Your task to perform on an android device: toggle translation in the chrome app Image 0: 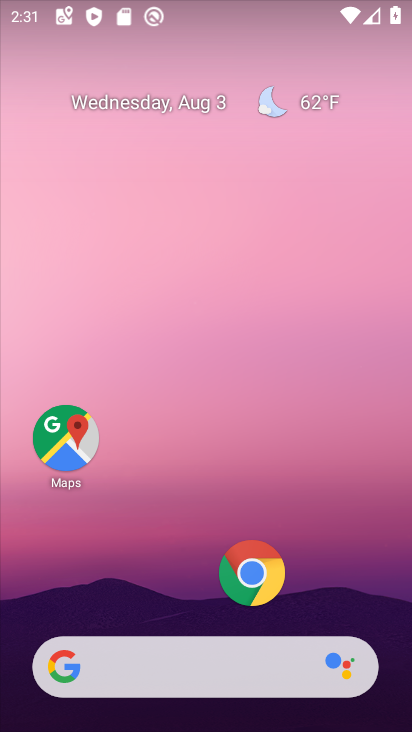
Step 0: drag from (177, 597) to (190, 46)
Your task to perform on an android device: toggle translation in the chrome app Image 1: 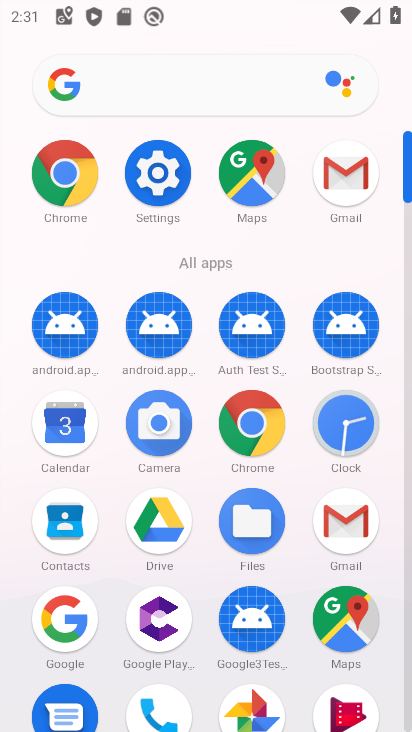
Step 1: click (261, 435)
Your task to perform on an android device: toggle translation in the chrome app Image 2: 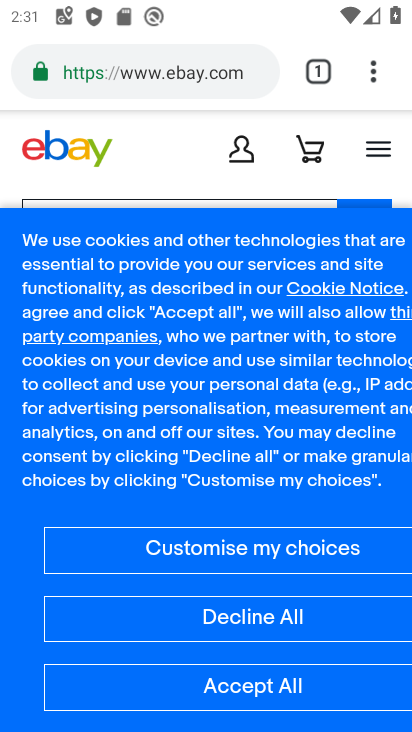
Step 2: click (371, 57)
Your task to perform on an android device: toggle translation in the chrome app Image 3: 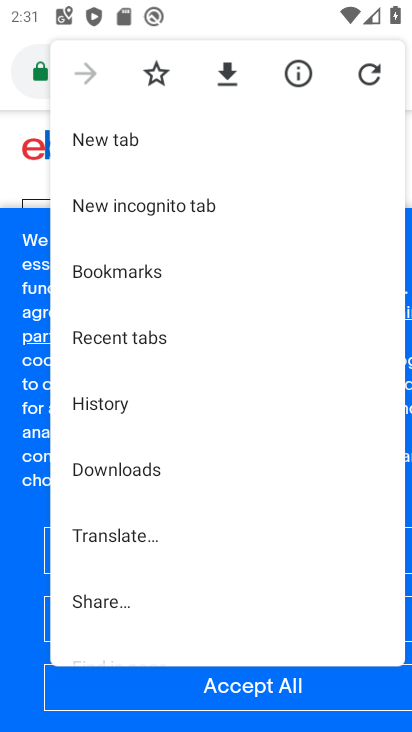
Step 3: drag from (116, 609) to (165, 279)
Your task to perform on an android device: toggle translation in the chrome app Image 4: 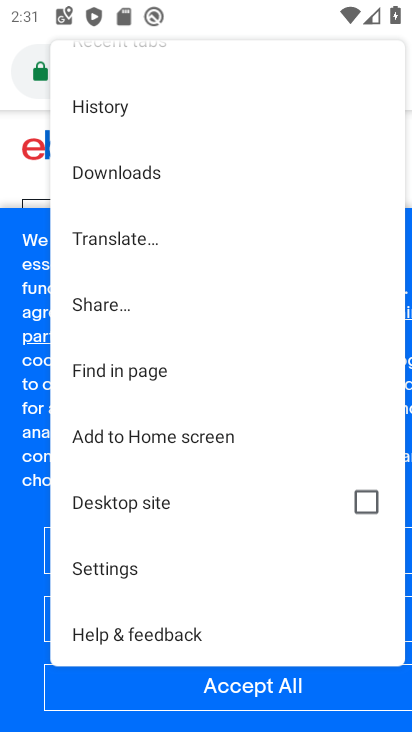
Step 4: click (106, 581)
Your task to perform on an android device: toggle translation in the chrome app Image 5: 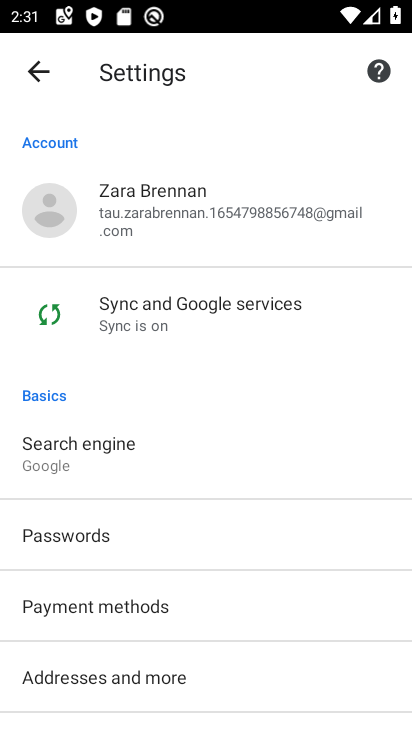
Step 5: drag from (107, 603) to (156, 409)
Your task to perform on an android device: toggle translation in the chrome app Image 6: 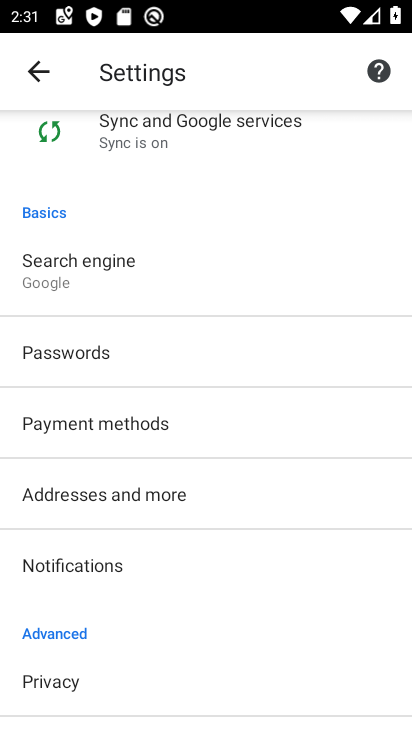
Step 6: drag from (82, 618) to (94, 386)
Your task to perform on an android device: toggle translation in the chrome app Image 7: 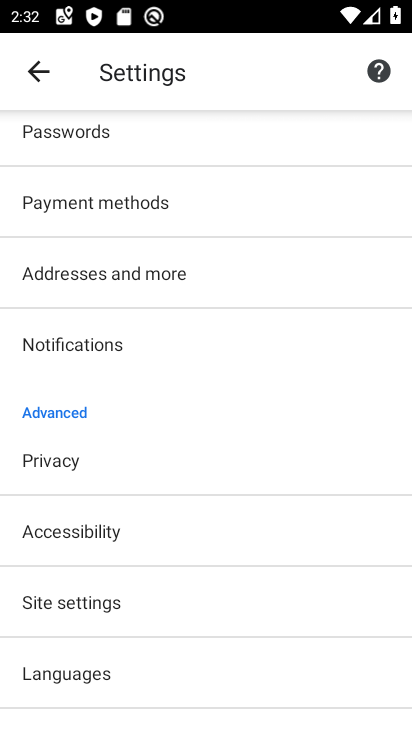
Step 7: drag from (89, 610) to (60, 413)
Your task to perform on an android device: toggle translation in the chrome app Image 8: 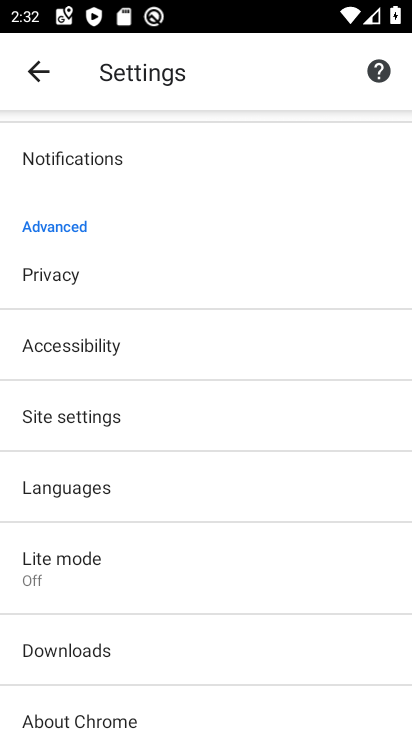
Step 8: click (77, 491)
Your task to perform on an android device: toggle translation in the chrome app Image 9: 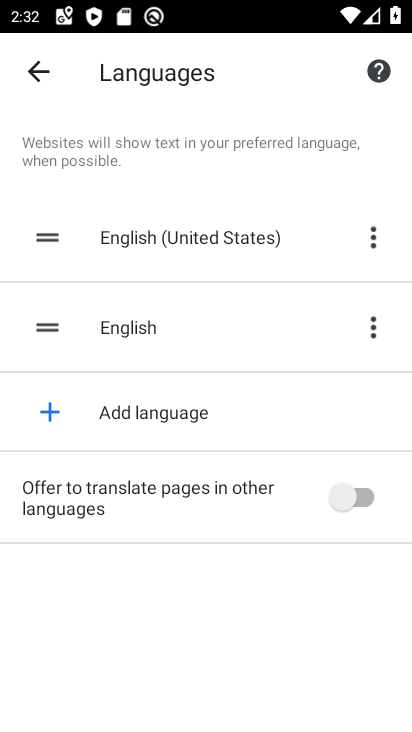
Step 9: click (312, 501)
Your task to perform on an android device: toggle translation in the chrome app Image 10: 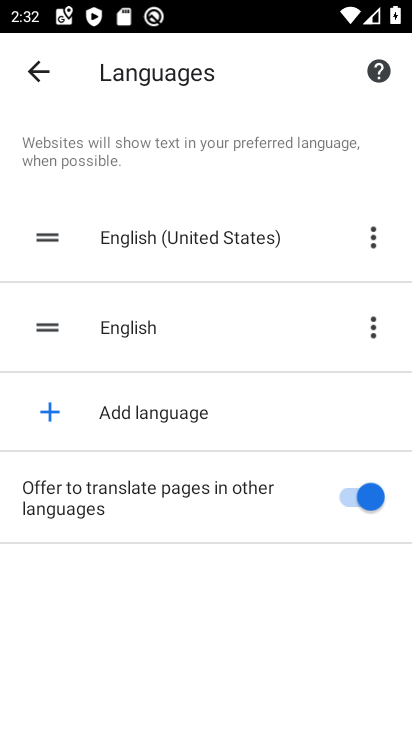
Step 10: task complete